Your task to perform on an android device: Go to eBay Image 0: 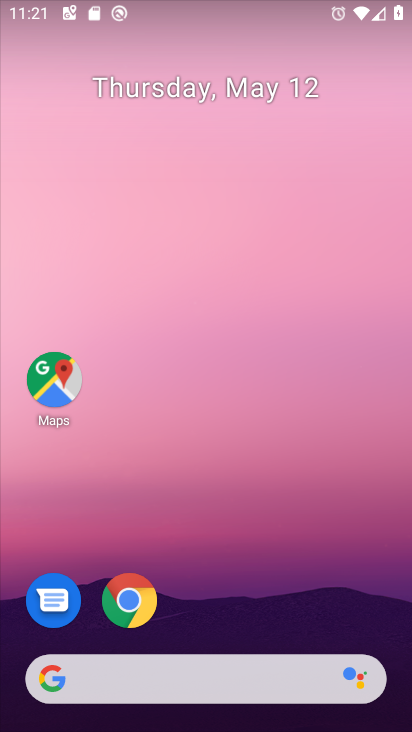
Step 0: click (129, 597)
Your task to perform on an android device: Go to eBay Image 1: 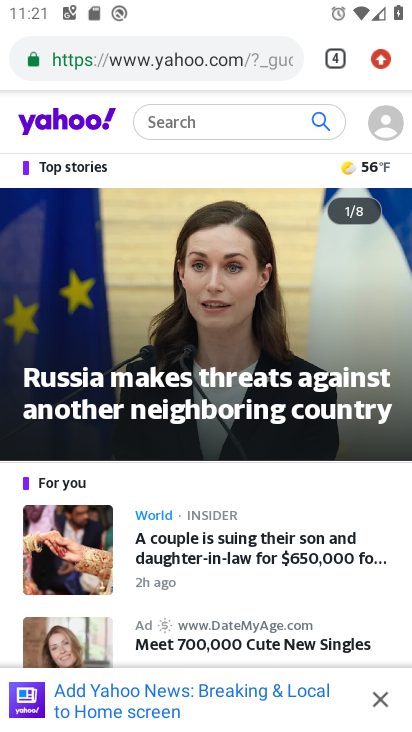
Step 1: click (335, 66)
Your task to perform on an android device: Go to eBay Image 2: 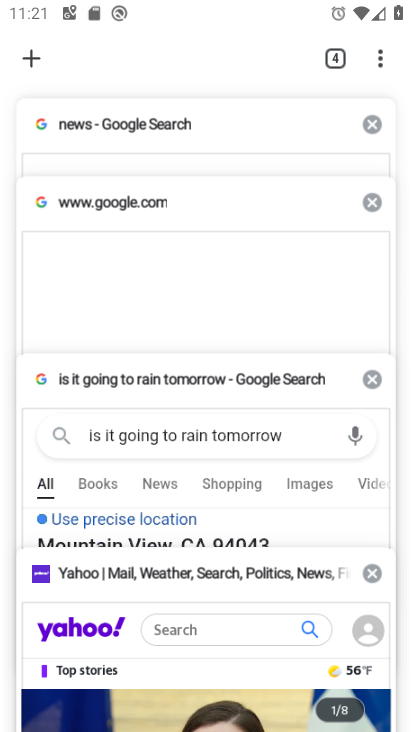
Step 2: click (32, 52)
Your task to perform on an android device: Go to eBay Image 3: 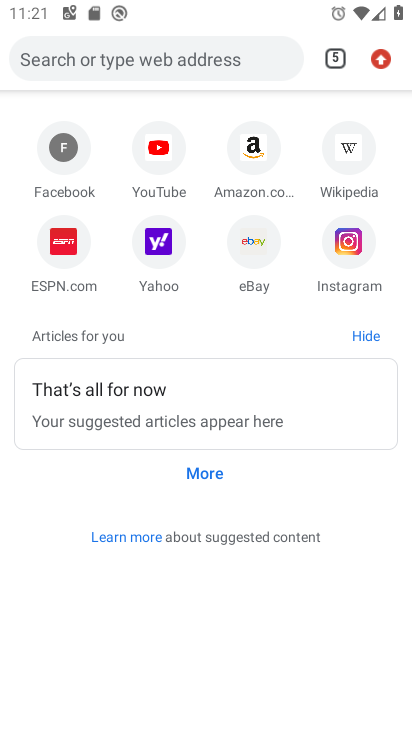
Step 3: click (257, 248)
Your task to perform on an android device: Go to eBay Image 4: 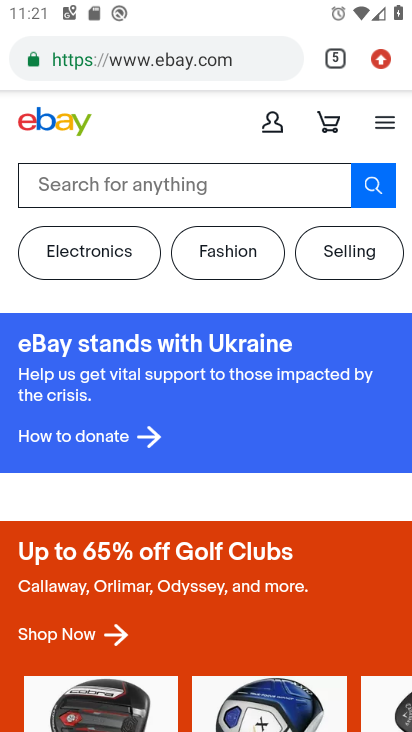
Step 4: task complete